Your task to perform on an android device: Open Google Chrome Image 0: 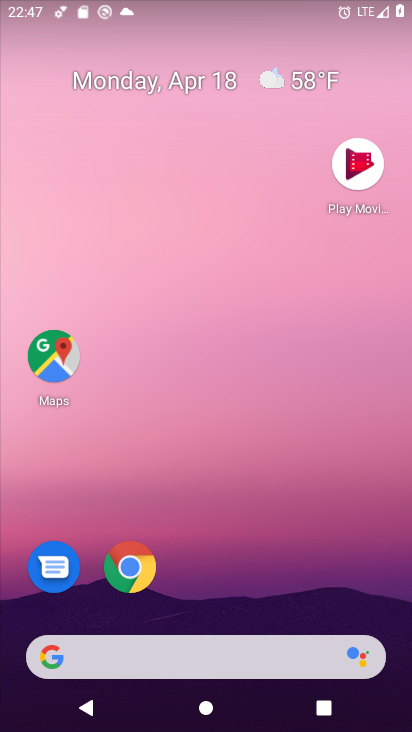
Step 0: drag from (207, 542) to (215, 331)
Your task to perform on an android device: Open Google Chrome Image 1: 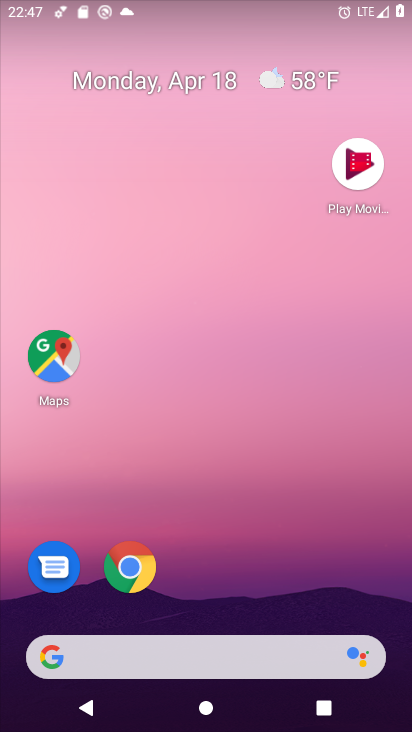
Step 1: drag from (206, 564) to (286, 181)
Your task to perform on an android device: Open Google Chrome Image 2: 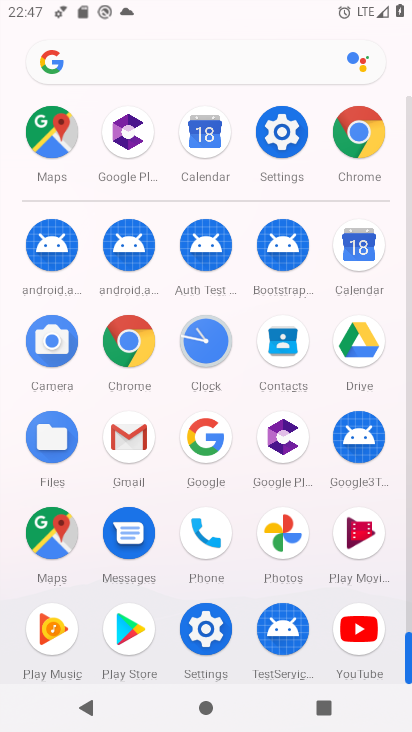
Step 2: click (130, 340)
Your task to perform on an android device: Open Google Chrome Image 3: 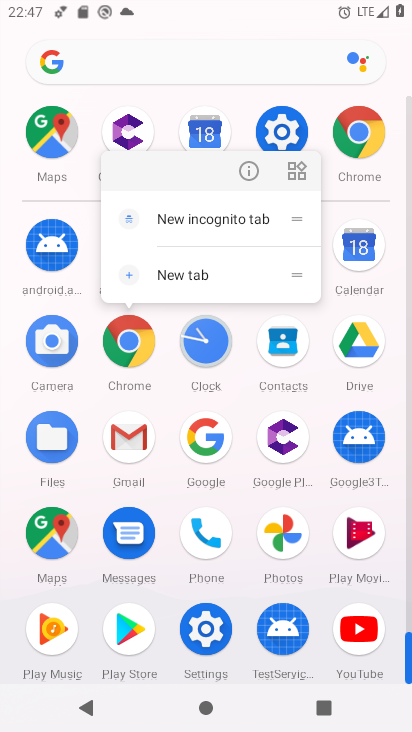
Step 3: click (251, 171)
Your task to perform on an android device: Open Google Chrome Image 4: 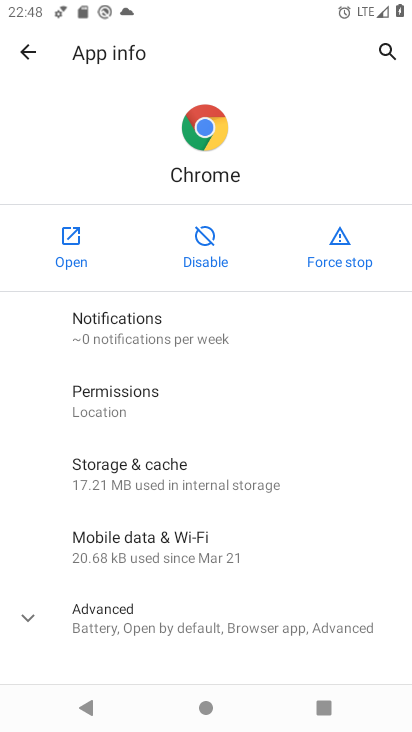
Step 4: click (63, 258)
Your task to perform on an android device: Open Google Chrome Image 5: 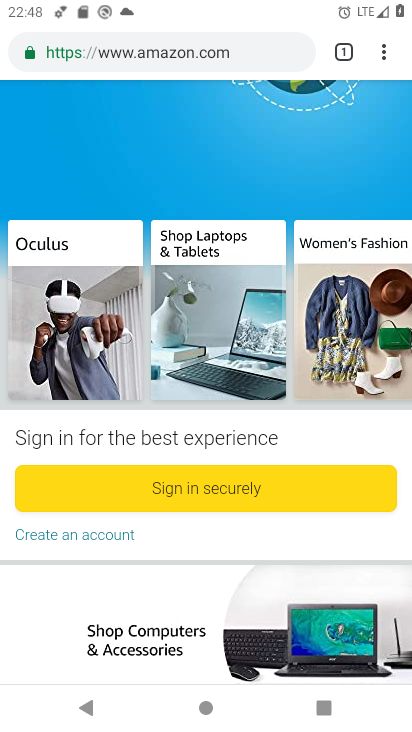
Step 5: drag from (212, 601) to (251, 235)
Your task to perform on an android device: Open Google Chrome Image 6: 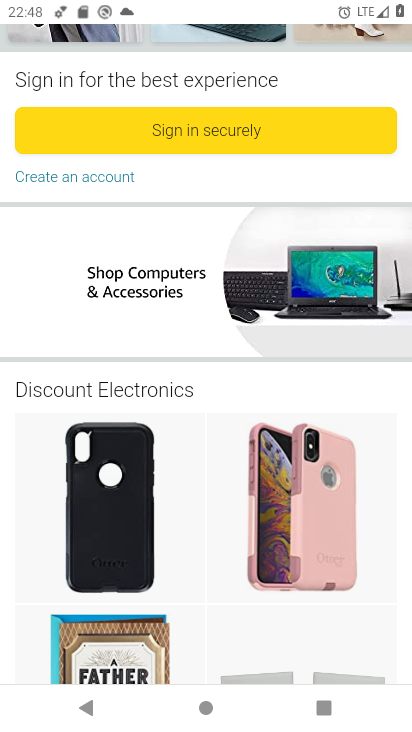
Step 6: drag from (219, 634) to (239, 324)
Your task to perform on an android device: Open Google Chrome Image 7: 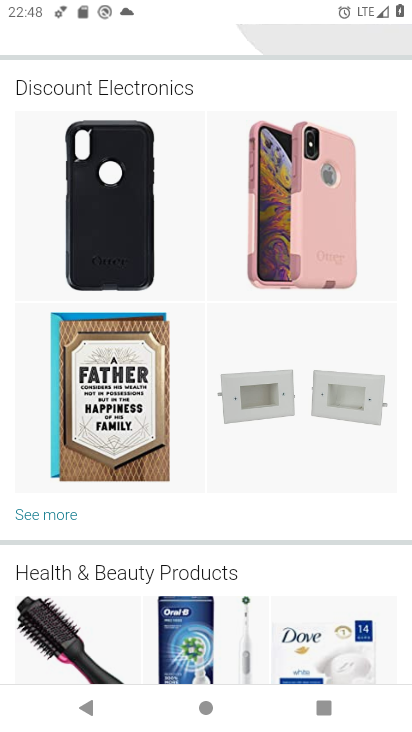
Step 7: drag from (230, 622) to (303, 255)
Your task to perform on an android device: Open Google Chrome Image 8: 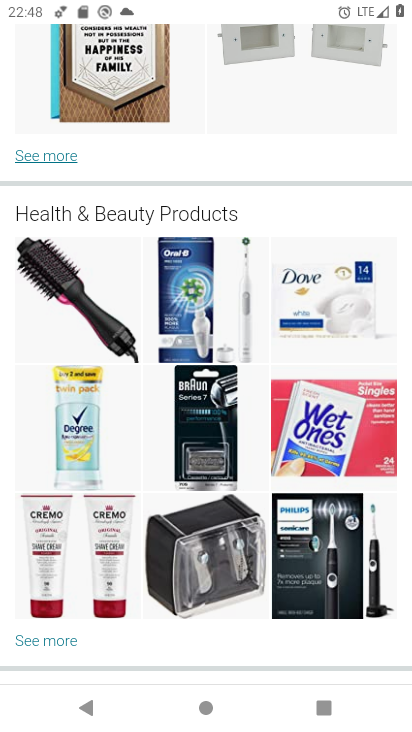
Step 8: drag from (259, 263) to (305, 681)
Your task to perform on an android device: Open Google Chrome Image 9: 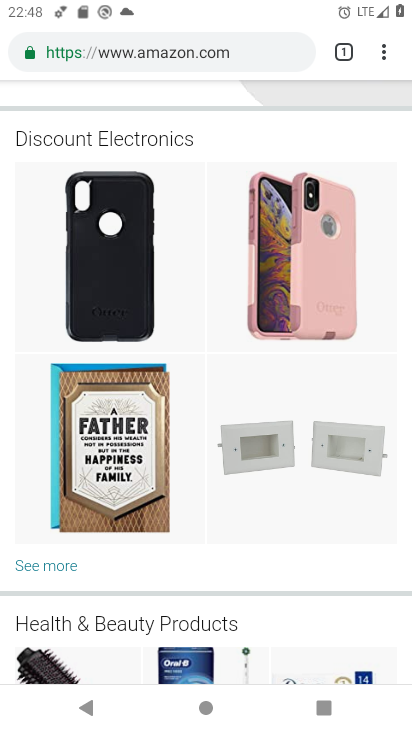
Step 9: drag from (287, 180) to (363, 697)
Your task to perform on an android device: Open Google Chrome Image 10: 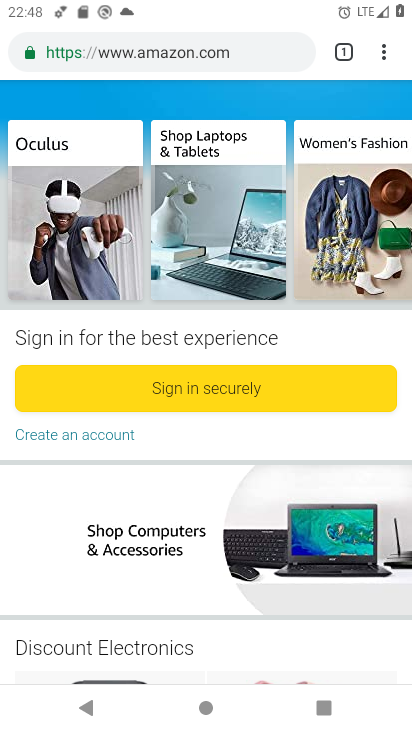
Step 10: drag from (307, 196) to (327, 639)
Your task to perform on an android device: Open Google Chrome Image 11: 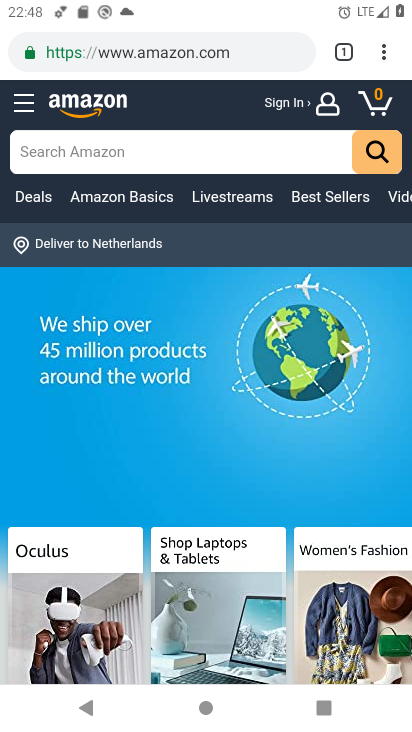
Step 11: click (389, 43)
Your task to perform on an android device: Open Google Chrome Image 12: 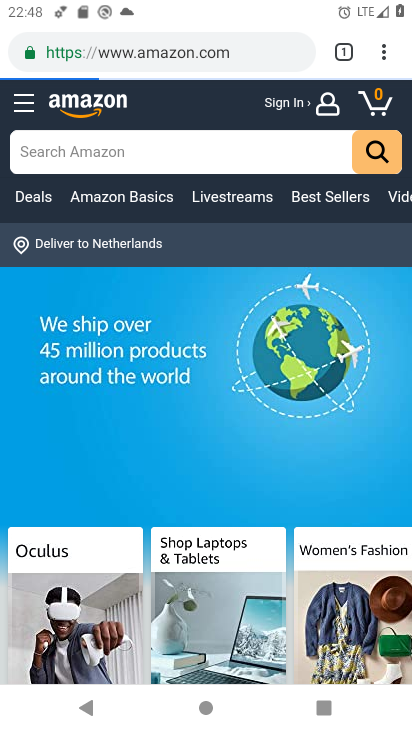
Step 12: click (389, 43)
Your task to perform on an android device: Open Google Chrome Image 13: 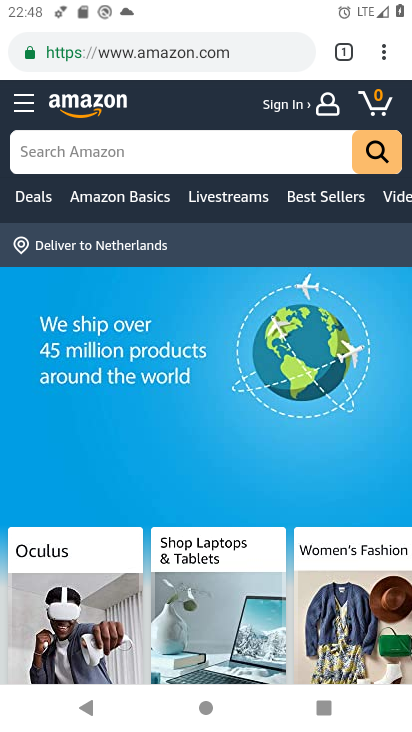
Step 13: task complete